Your task to perform on an android device: Open Google Maps Image 0: 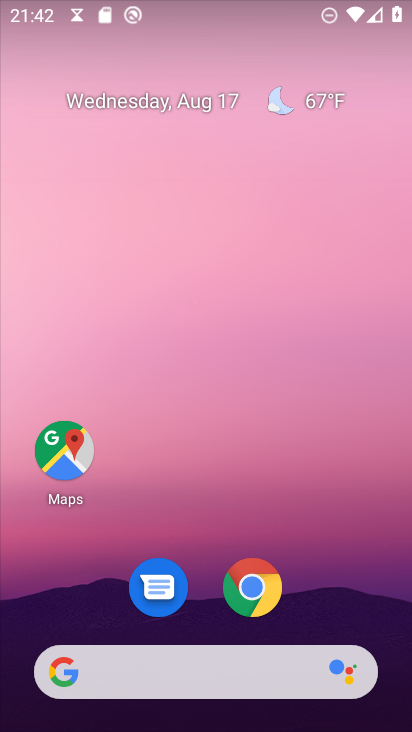
Step 0: click (46, 470)
Your task to perform on an android device: Open Google Maps Image 1: 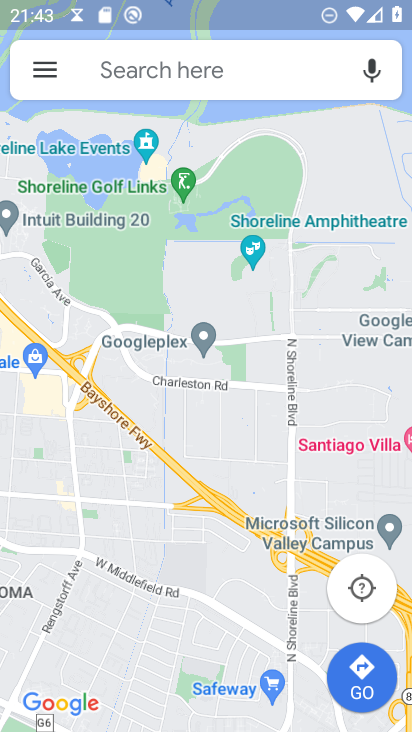
Step 1: click (128, 81)
Your task to perform on an android device: Open Google Maps Image 2: 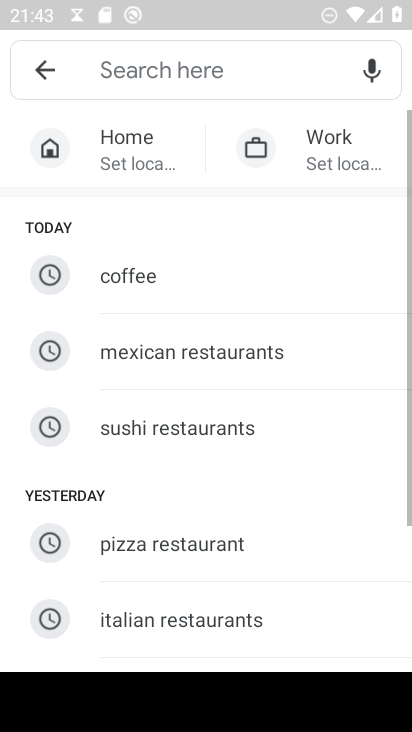
Step 2: click (26, 75)
Your task to perform on an android device: Open Google Maps Image 3: 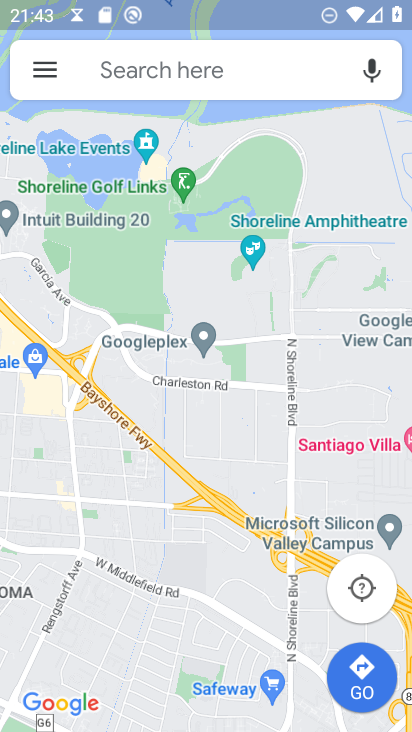
Step 3: task complete